Your task to perform on an android device: find photos in the google photos app Image 0: 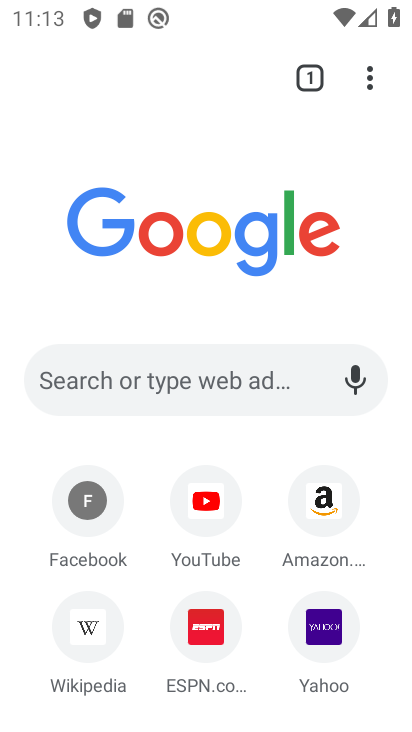
Step 0: press home button
Your task to perform on an android device: find photos in the google photos app Image 1: 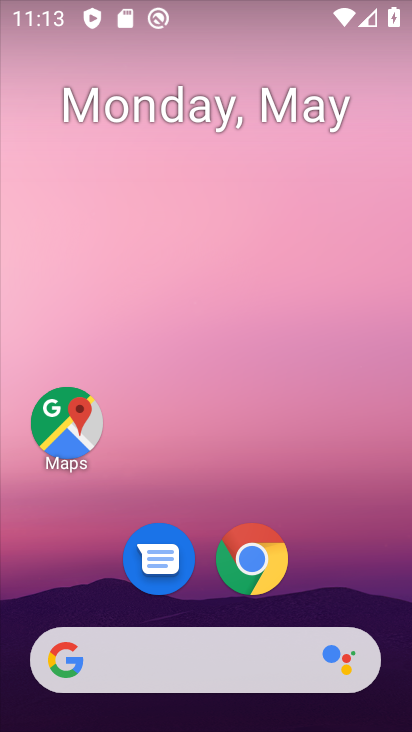
Step 1: drag from (90, 616) to (201, 114)
Your task to perform on an android device: find photos in the google photos app Image 2: 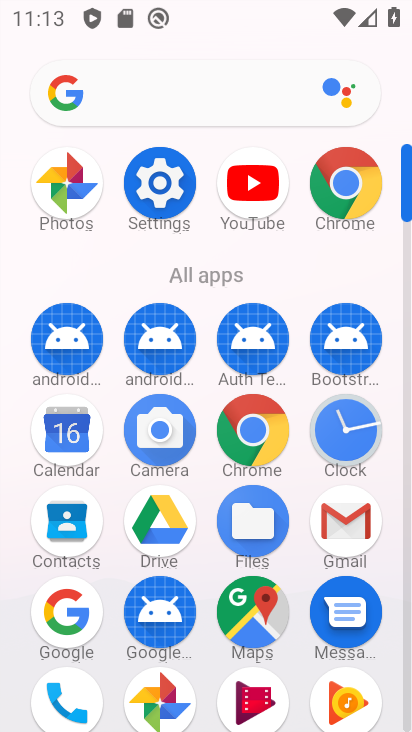
Step 2: click (161, 692)
Your task to perform on an android device: find photos in the google photos app Image 3: 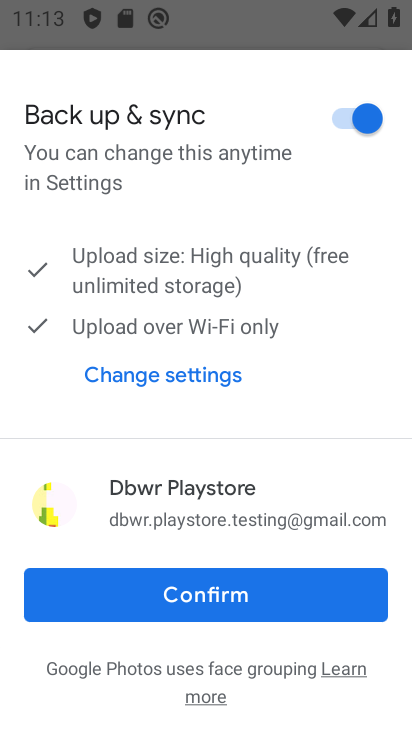
Step 3: click (224, 604)
Your task to perform on an android device: find photos in the google photos app Image 4: 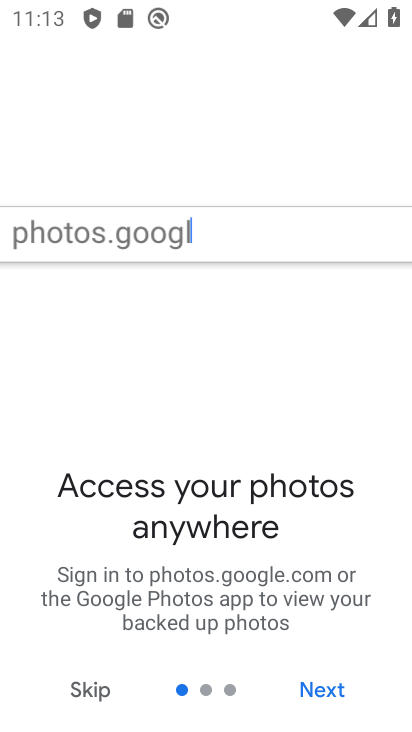
Step 4: click (345, 696)
Your task to perform on an android device: find photos in the google photos app Image 5: 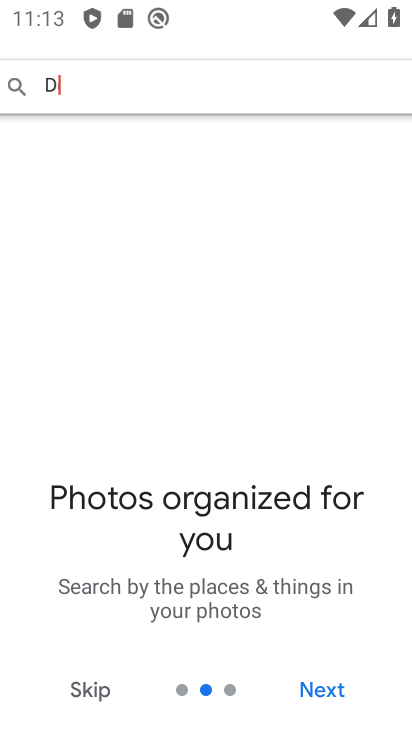
Step 5: click (341, 692)
Your task to perform on an android device: find photos in the google photos app Image 6: 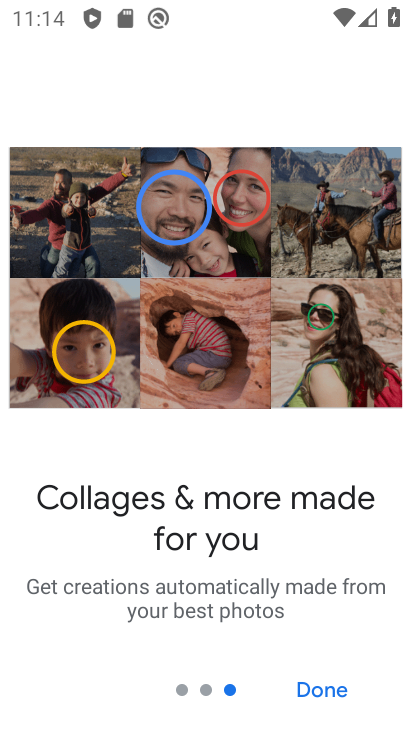
Step 6: click (340, 691)
Your task to perform on an android device: find photos in the google photos app Image 7: 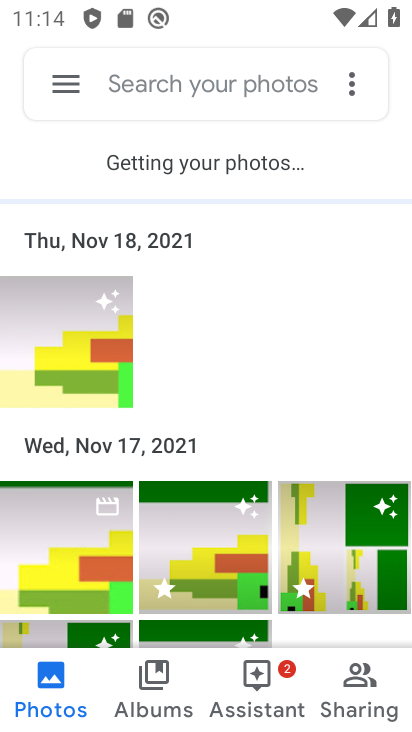
Step 7: task complete